Your task to perform on an android device: snooze an email in the gmail app Image 0: 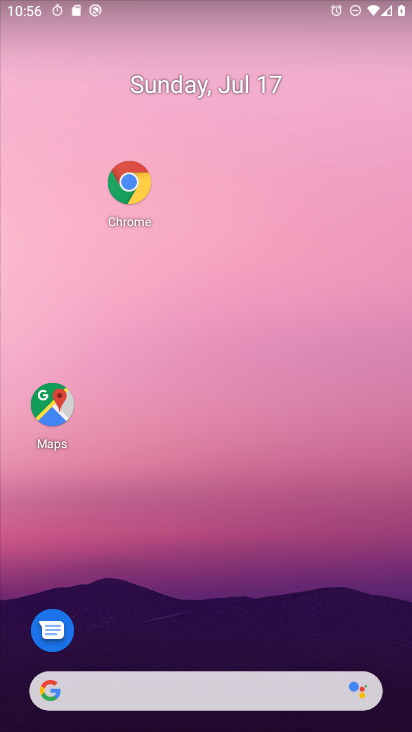
Step 0: drag from (217, 666) to (233, 136)
Your task to perform on an android device: snooze an email in the gmail app Image 1: 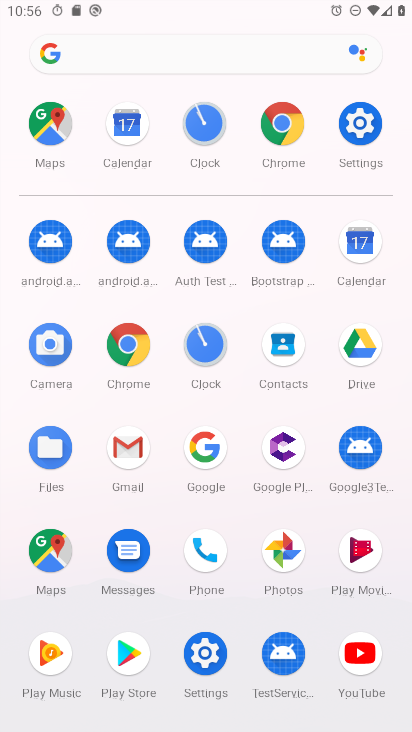
Step 1: click (138, 430)
Your task to perform on an android device: snooze an email in the gmail app Image 2: 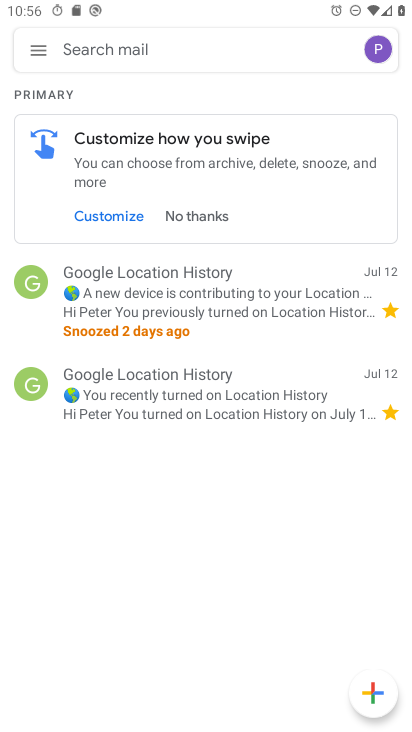
Step 2: click (39, 58)
Your task to perform on an android device: snooze an email in the gmail app Image 3: 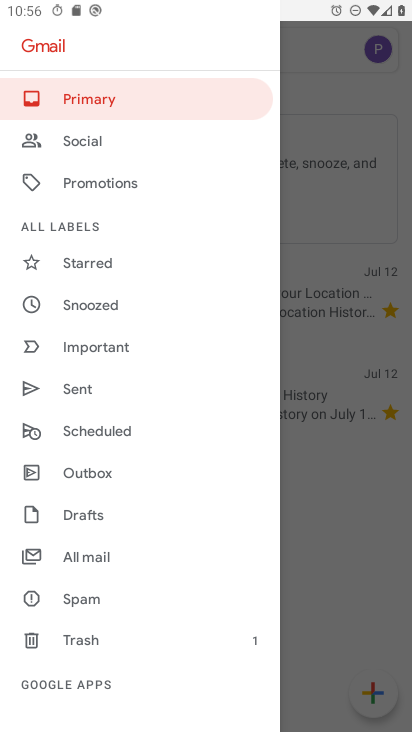
Step 3: click (142, 298)
Your task to perform on an android device: snooze an email in the gmail app Image 4: 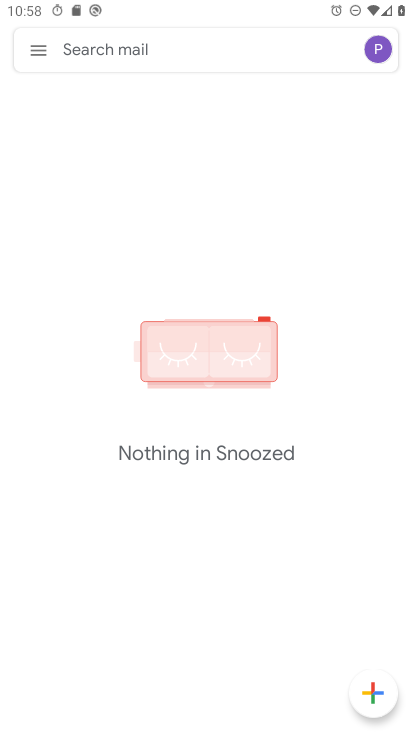
Step 4: task complete